Your task to perform on an android device: Open my contact list Image 0: 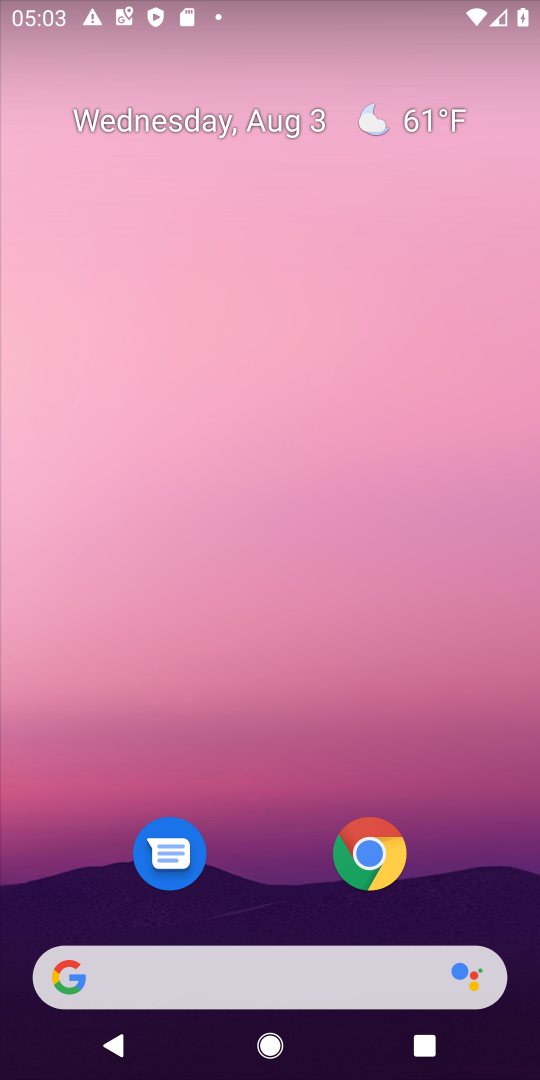
Step 0: drag from (259, 521) to (244, 20)
Your task to perform on an android device: Open my contact list Image 1: 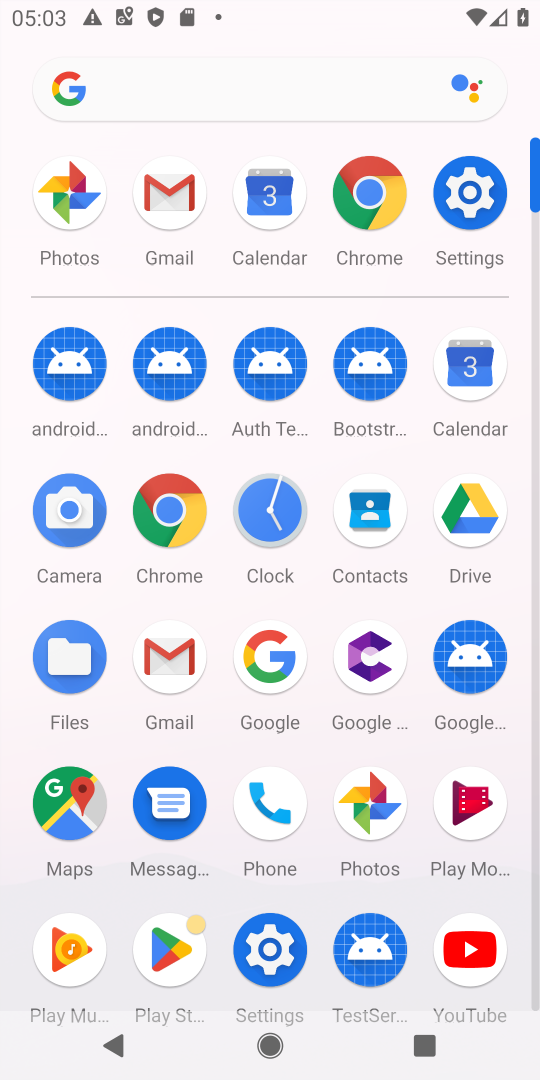
Step 1: click (370, 517)
Your task to perform on an android device: Open my contact list Image 2: 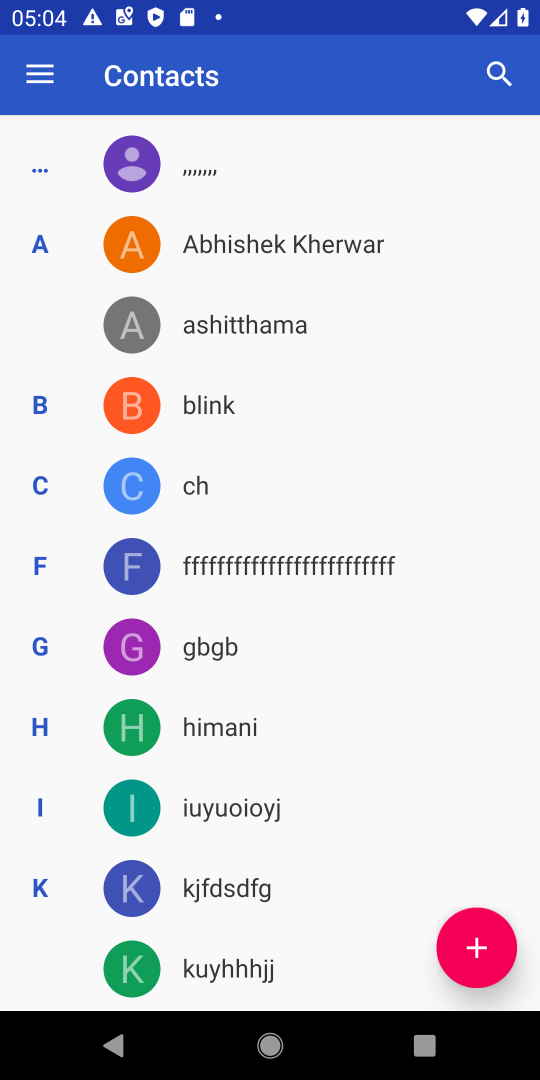
Step 2: task complete